Your task to perform on an android device: Go to sound settings Image 0: 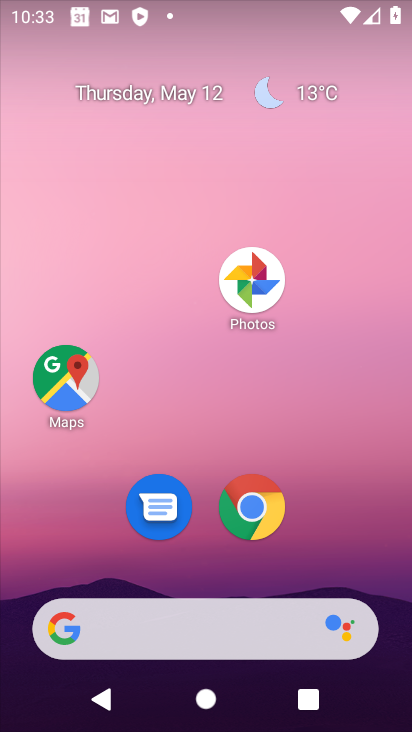
Step 0: press home button
Your task to perform on an android device: Go to sound settings Image 1: 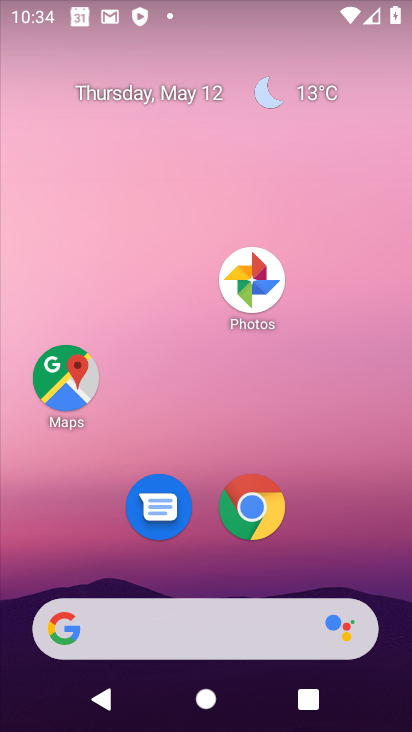
Step 1: drag from (379, 578) to (320, 11)
Your task to perform on an android device: Go to sound settings Image 2: 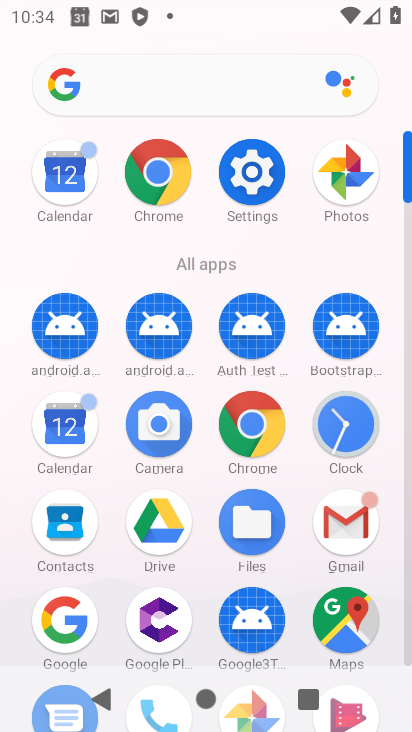
Step 2: click (244, 199)
Your task to perform on an android device: Go to sound settings Image 3: 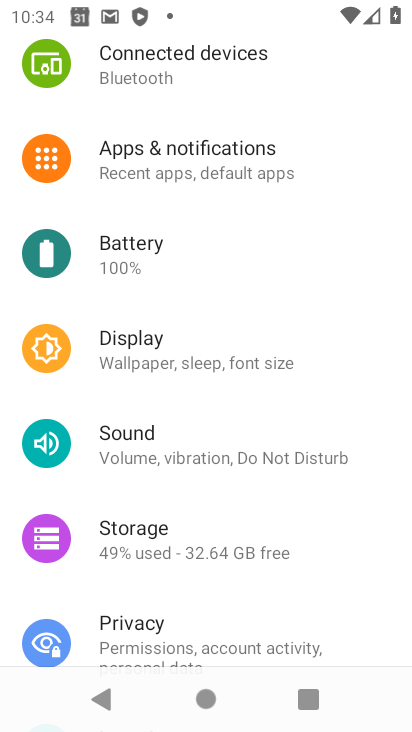
Step 3: click (152, 457)
Your task to perform on an android device: Go to sound settings Image 4: 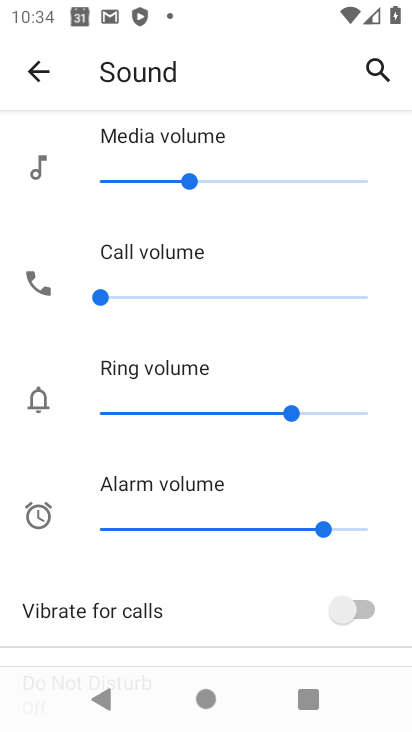
Step 4: task complete